Your task to perform on an android device: change the upload size in google photos Image 0: 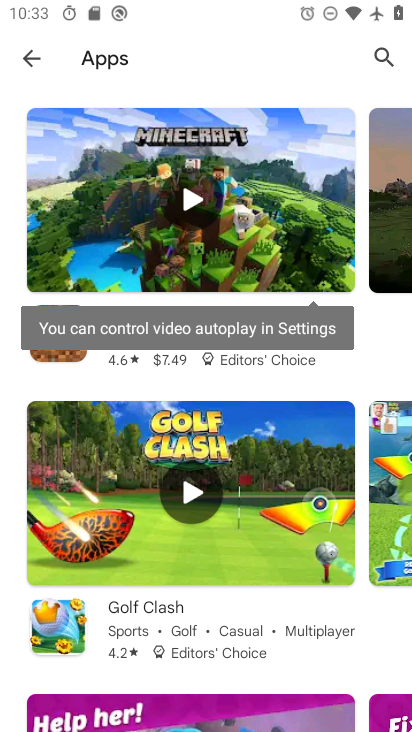
Step 0: press home button
Your task to perform on an android device: change the upload size in google photos Image 1: 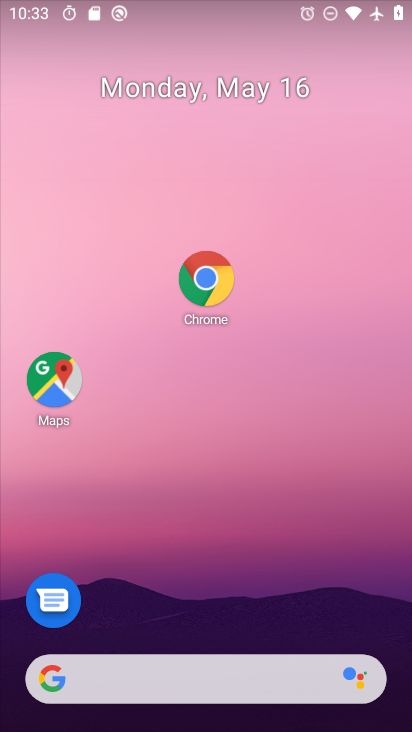
Step 1: drag from (216, 688) to (339, 303)
Your task to perform on an android device: change the upload size in google photos Image 2: 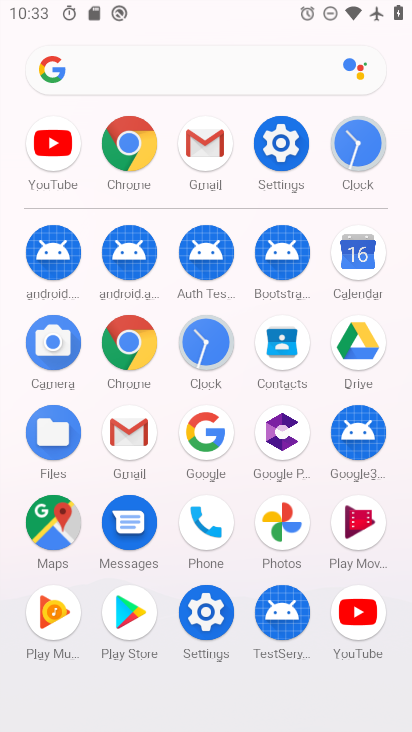
Step 2: click (279, 522)
Your task to perform on an android device: change the upload size in google photos Image 3: 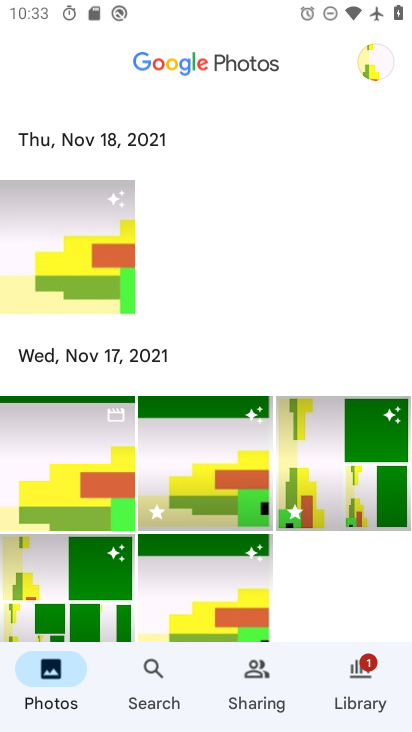
Step 3: click (385, 61)
Your task to perform on an android device: change the upload size in google photos Image 4: 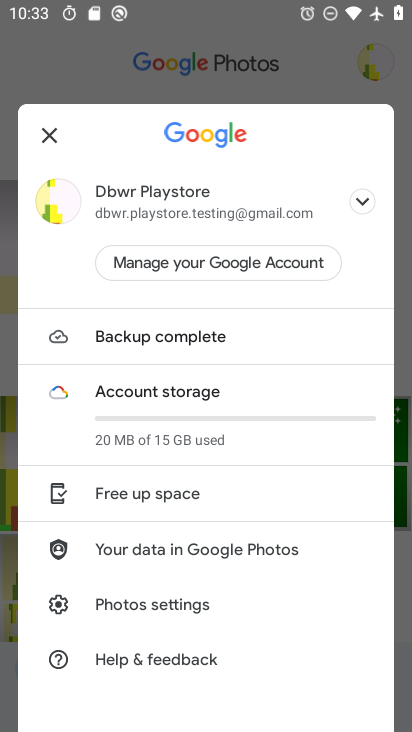
Step 4: click (157, 604)
Your task to perform on an android device: change the upload size in google photos Image 5: 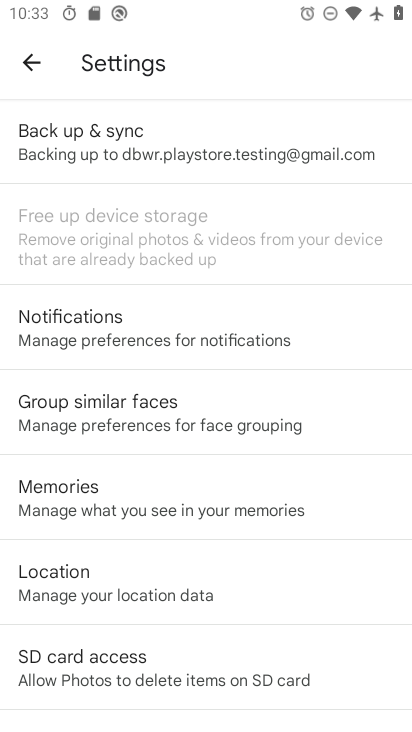
Step 5: click (145, 160)
Your task to perform on an android device: change the upload size in google photos Image 6: 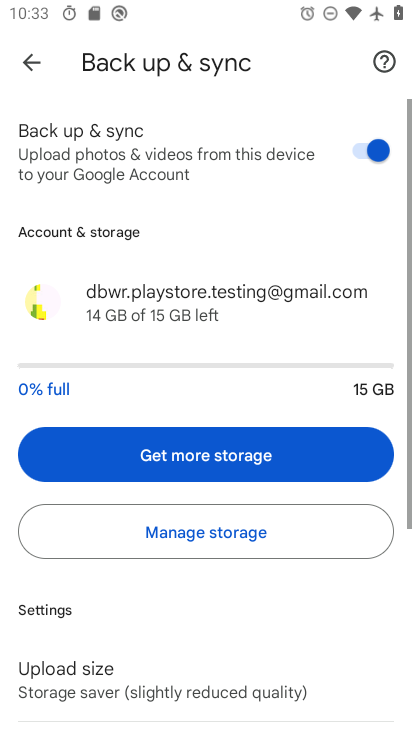
Step 6: drag from (292, 578) to (325, 193)
Your task to perform on an android device: change the upload size in google photos Image 7: 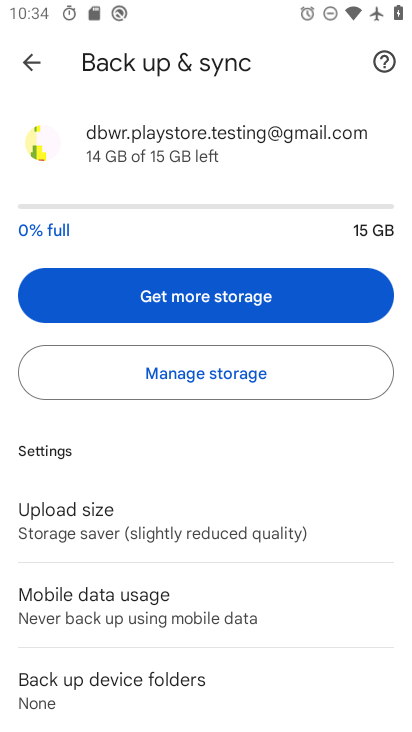
Step 7: click (183, 518)
Your task to perform on an android device: change the upload size in google photos Image 8: 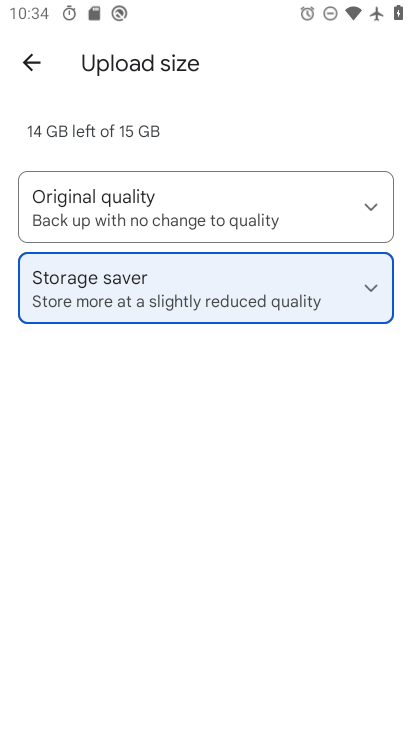
Step 8: click (375, 203)
Your task to perform on an android device: change the upload size in google photos Image 9: 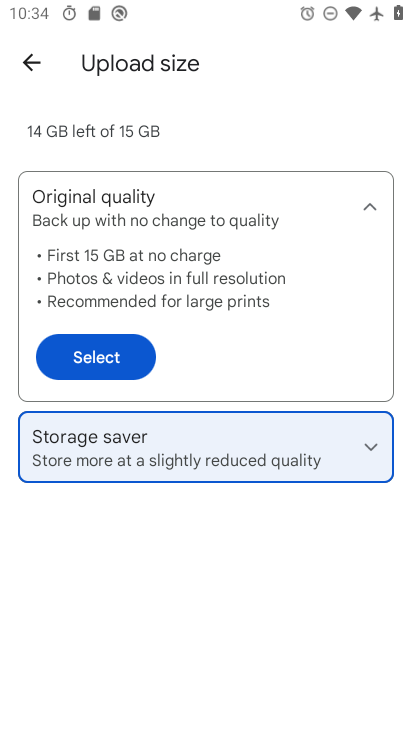
Step 9: click (62, 361)
Your task to perform on an android device: change the upload size in google photos Image 10: 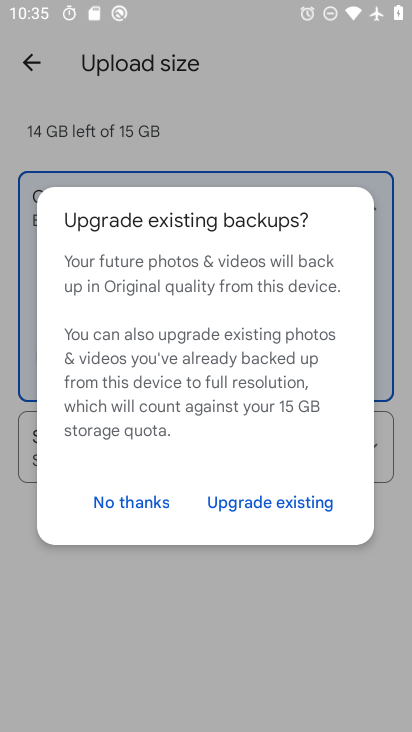
Step 10: click (161, 505)
Your task to perform on an android device: change the upload size in google photos Image 11: 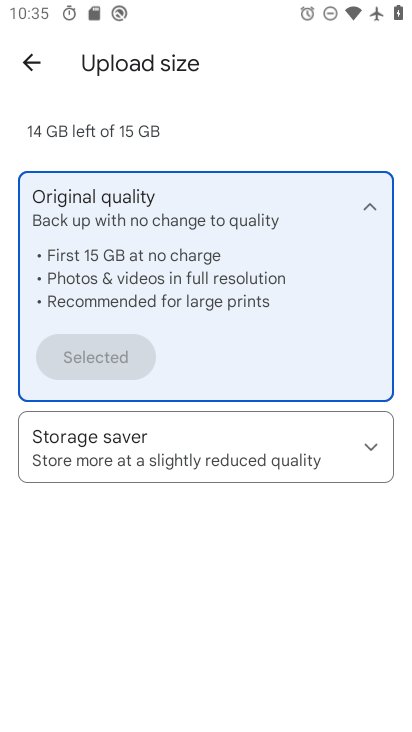
Step 11: task complete